Your task to perform on an android device: turn off airplane mode Image 0: 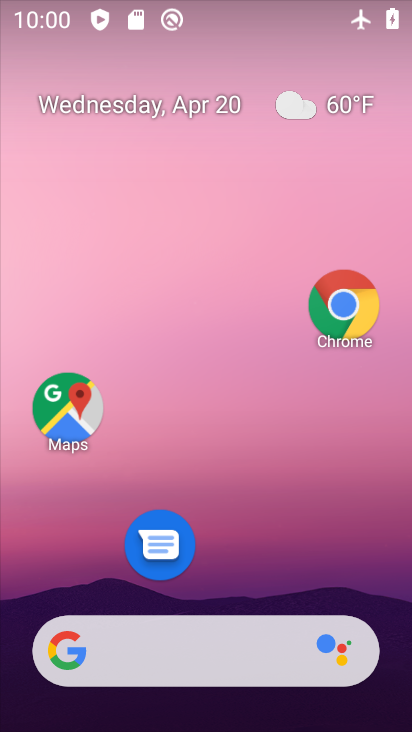
Step 0: drag from (261, 598) to (288, 150)
Your task to perform on an android device: turn off airplane mode Image 1: 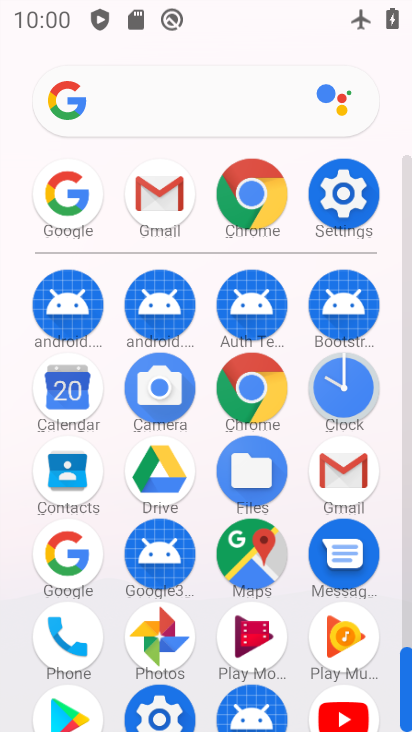
Step 1: click (342, 209)
Your task to perform on an android device: turn off airplane mode Image 2: 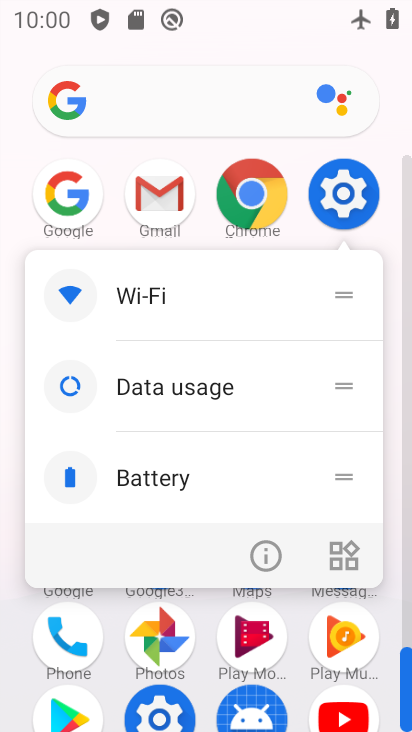
Step 2: click (342, 209)
Your task to perform on an android device: turn off airplane mode Image 3: 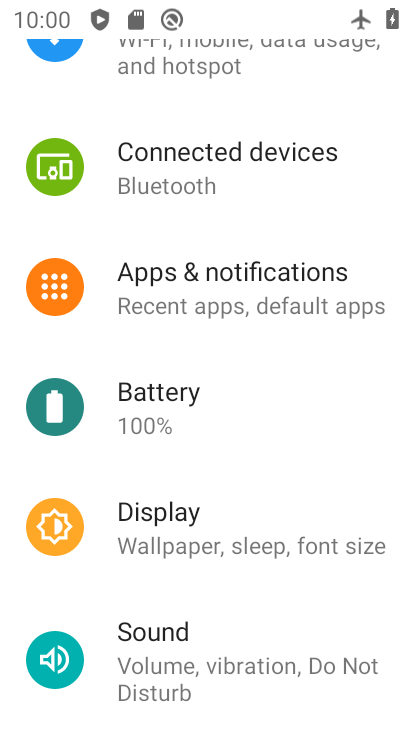
Step 3: drag from (254, 253) to (208, 690)
Your task to perform on an android device: turn off airplane mode Image 4: 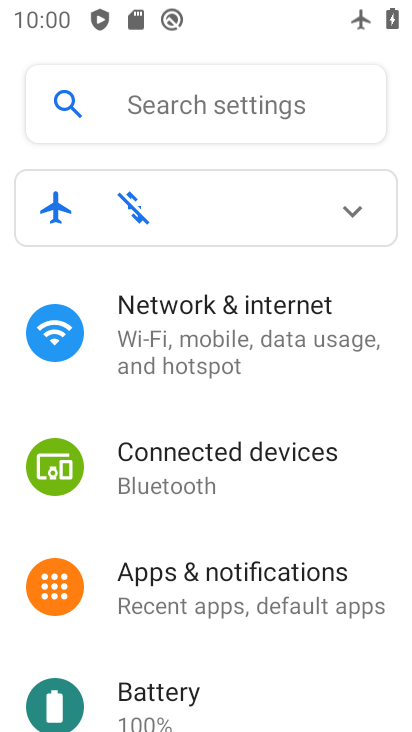
Step 4: click (237, 327)
Your task to perform on an android device: turn off airplane mode Image 5: 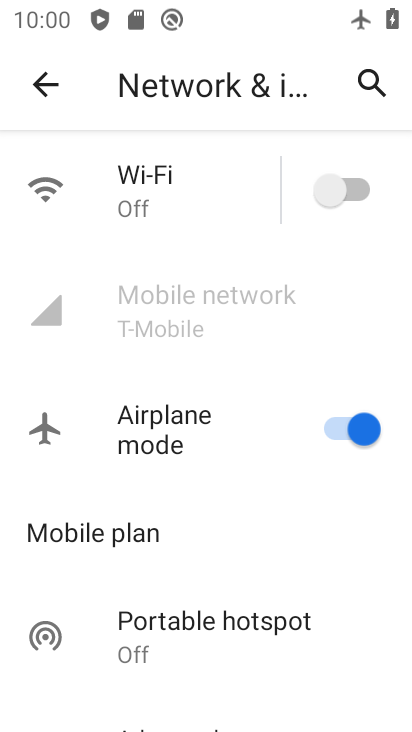
Step 5: click (331, 439)
Your task to perform on an android device: turn off airplane mode Image 6: 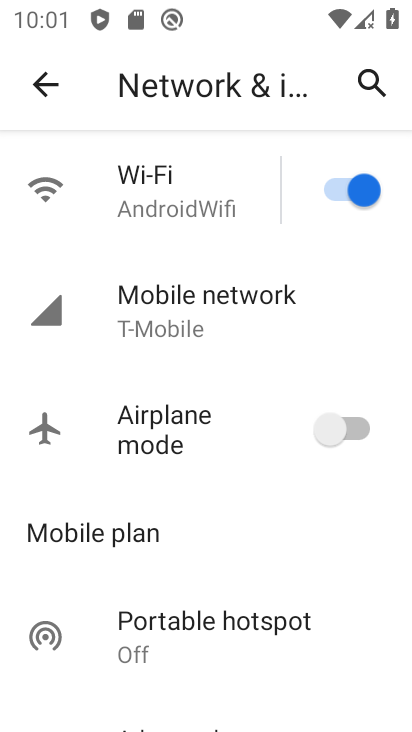
Step 6: task complete